Your task to perform on an android device: toggle sleep mode Image 0: 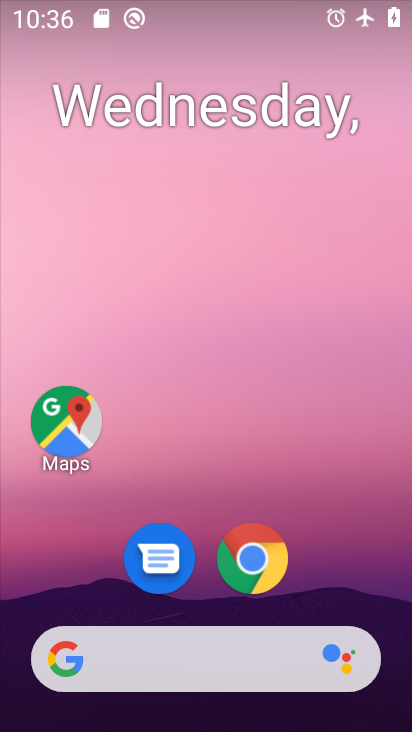
Step 0: drag from (333, 343) to (351, 76)
Your task to perform on an android device: toggle sleep mode Image 1: 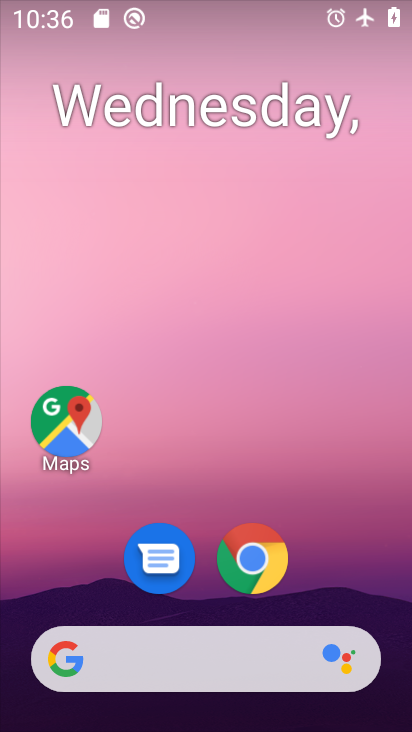
Step 1: drag from (362, 548) to (356, 89)
Your task to perform on an android device: toggle sleep mode Image 2: 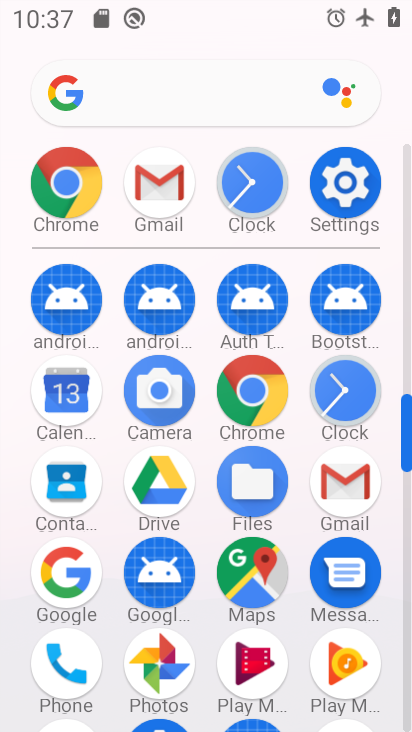
Step 2: click (357, 183)
Your task to perform on an android device: toggle sleep mode Image 3: 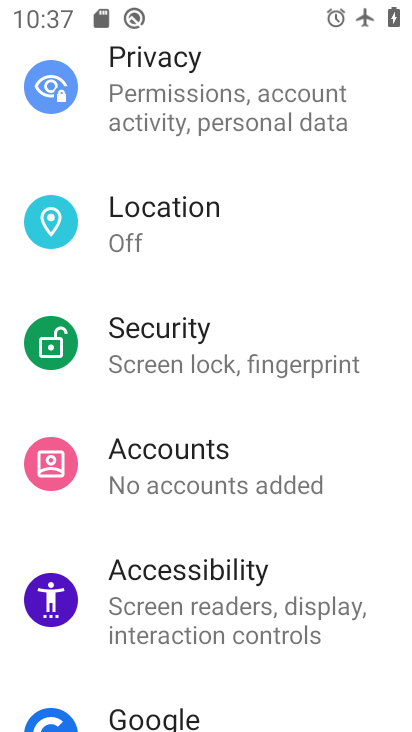
Step 3: drag from (357, 179) to (369, 306)
Your task to perform on an android device: toggle sleep mode Image 4: 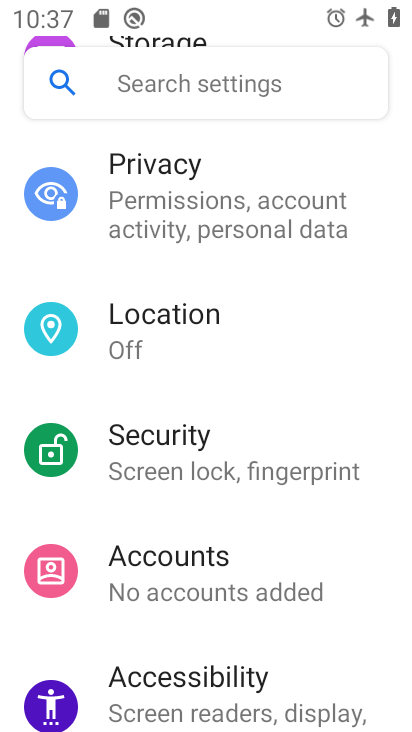
Step 4: drag from (368, 186) to (378, 299)
Your task to perform on an android device: toggle sleep mode Image 5: 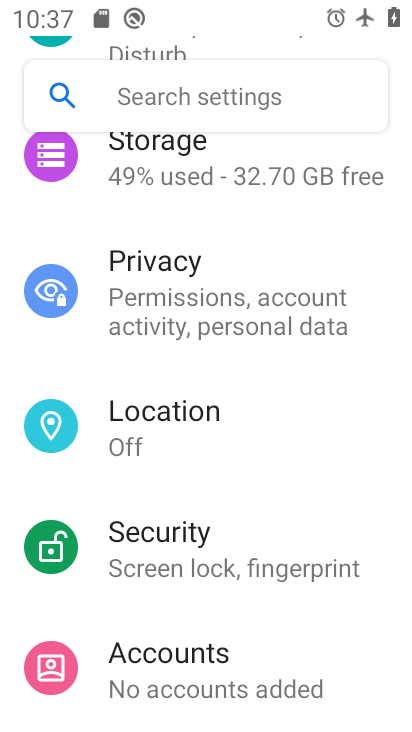
Step 5: drag from (367, 236) to (363, 361)
Your task to perform on an android device: toggle sleep mode Image 6: 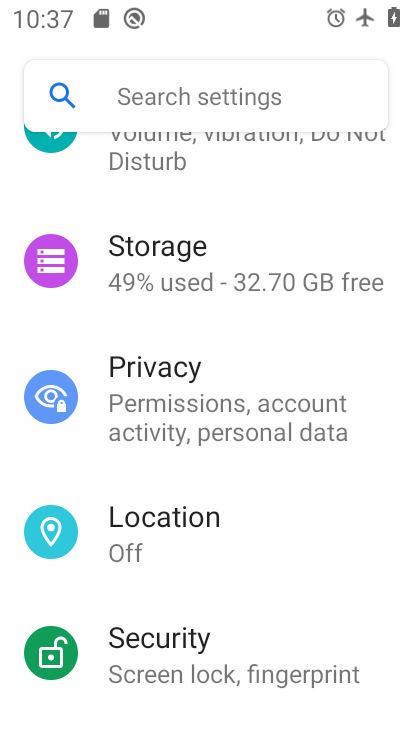
Step 6: drag from (364, 212) to (364, 330)
Your task to perform on an android device: toggle sleep mode Image 7: 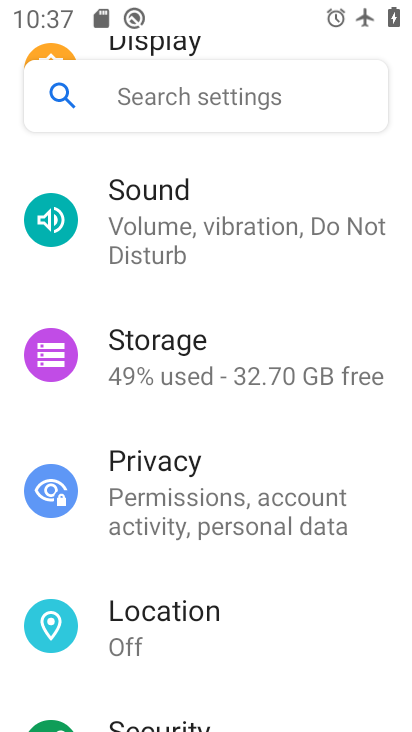
Step 7: drag from (366, 175) to (370, 310)
Your task to perform on an android device: toggle sleep mode Image 8: 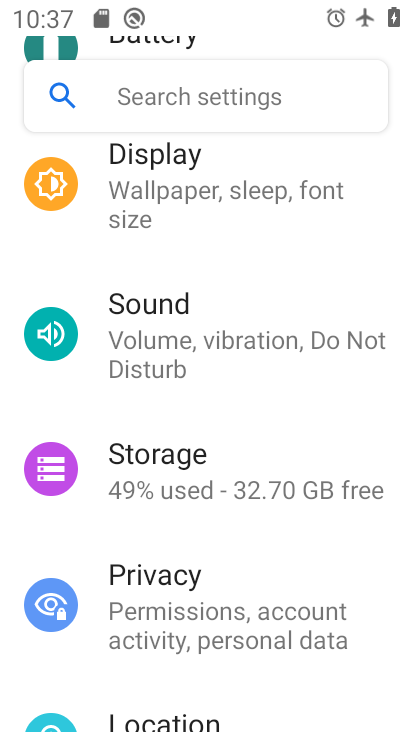
Step 8: drag from (356, 174) to (362, 317)
Your task to perform on an android device: toggle sleep mode Image 9: 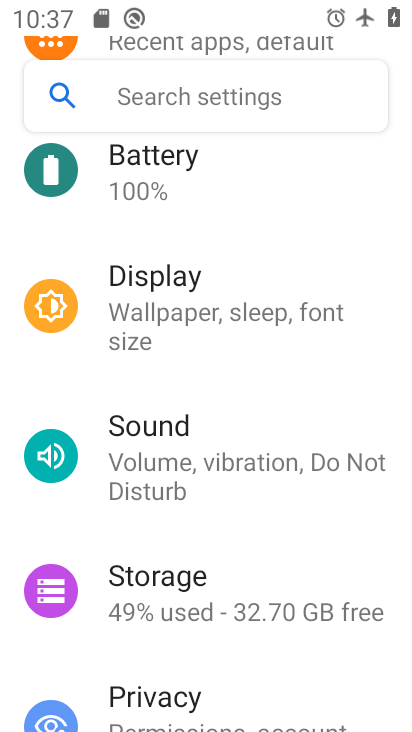
Step 9: drag from (361, 187) to (370, 308)
Your task to perform on an android device: toggle sleep mode Image 10: 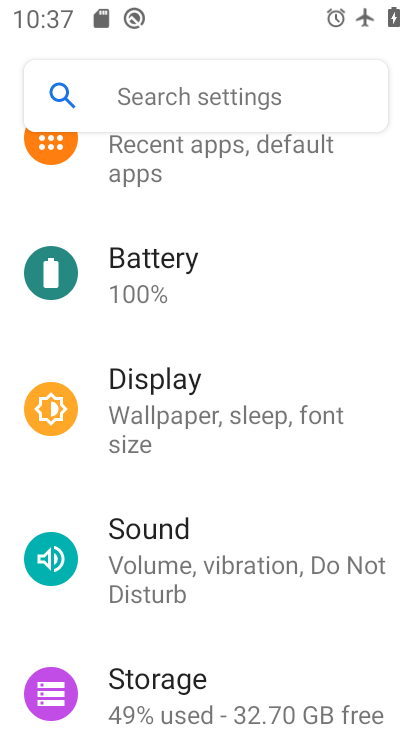
Step 10: drag from (357, 206) to (357, 354)
Your task to perform on an android device: toggle sleep mode Image 11: 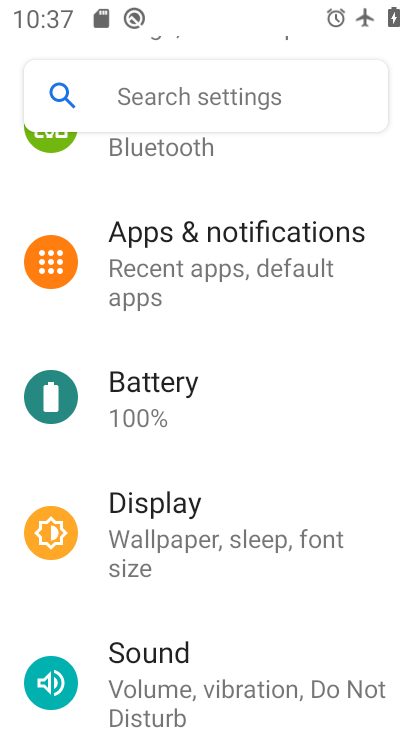
Step 11: click (242, 523)
Your task to perform on an android device: toggle sleep mode Image 12: 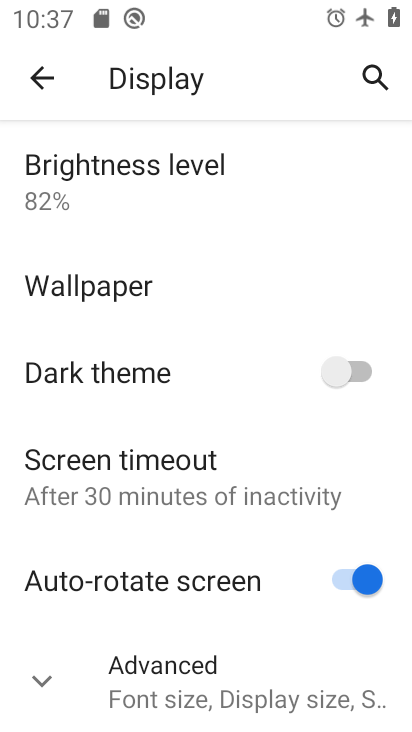
Step 12: drag from (274, 523) to (274, 338)
Your task to perform on an android device: toggle sleep mode Image 13: 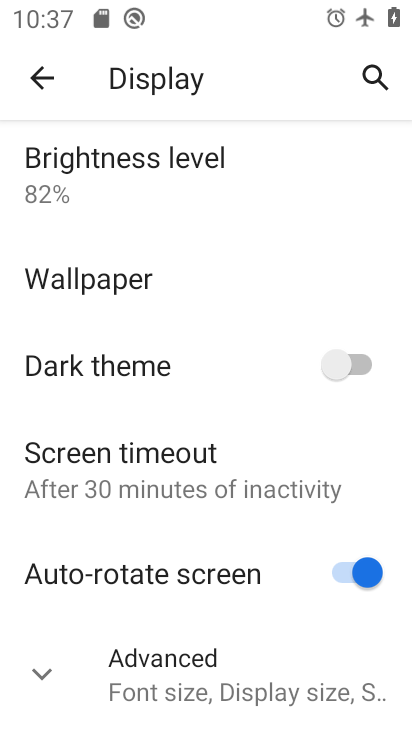
Step 13: click (209, 686)
Your task to perform on an android device: toggle sleep mode Image 14: 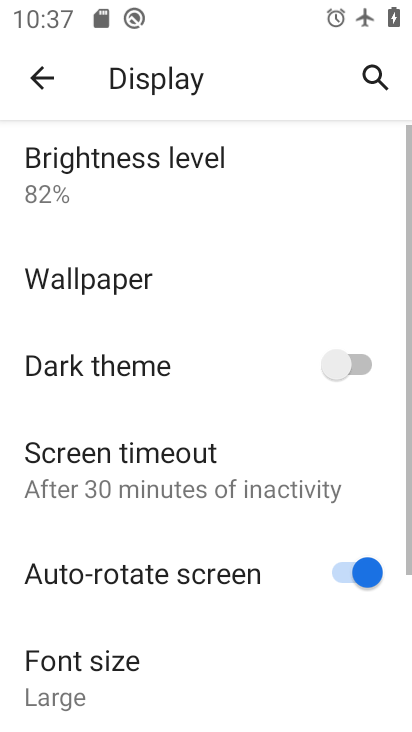
Step 14: task complete